Your task to perform on an android device: empty trash in the gmail app Image 0: 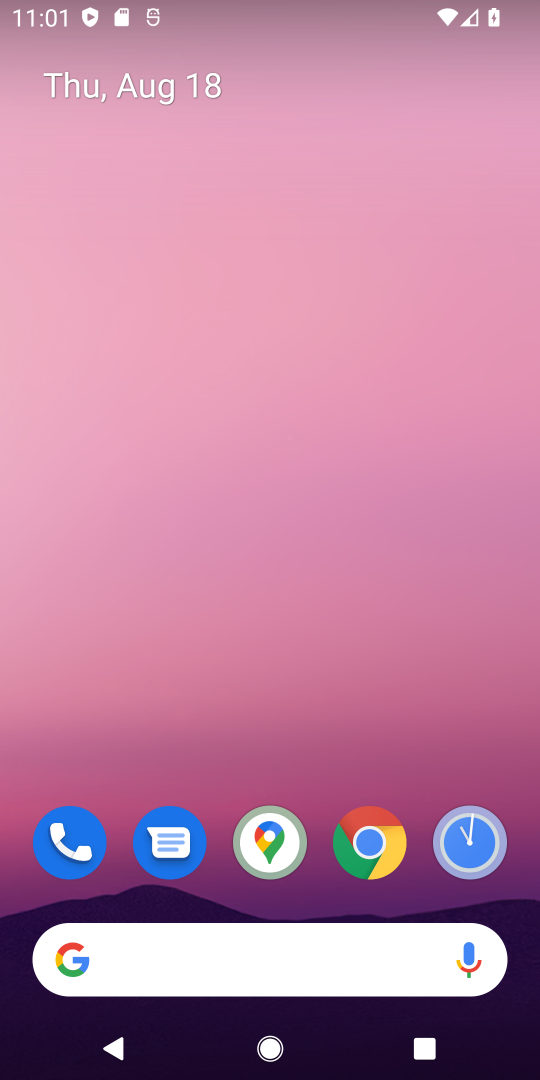
Step 0: drag from (220, 879) to (258, 116)
Your task to perform on an android device: empty trash in the gmail app Image 1: 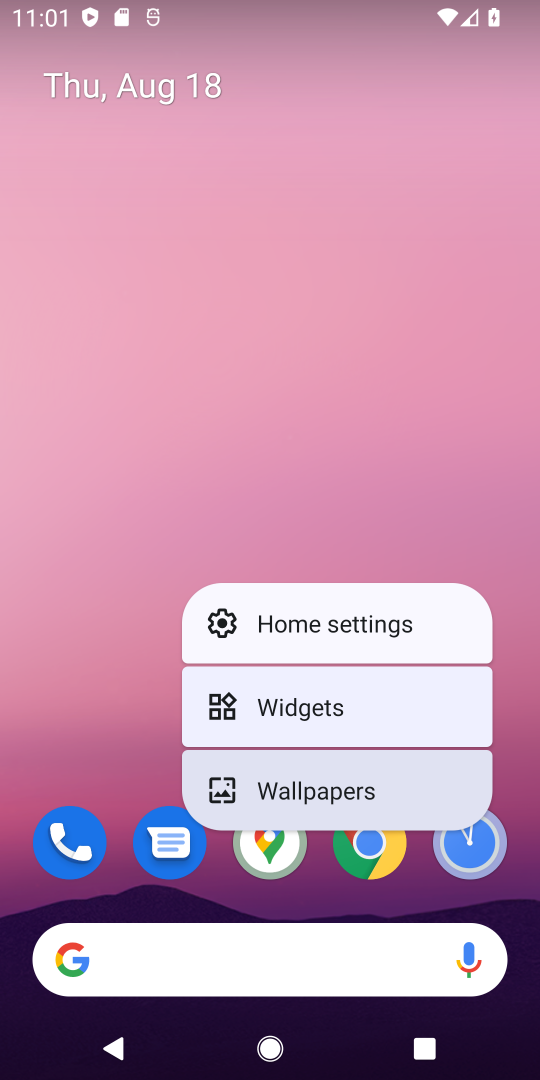
Step 1: click (224, 872)
Your task to perform on an android device: empty trash in the gmail app Image 2: 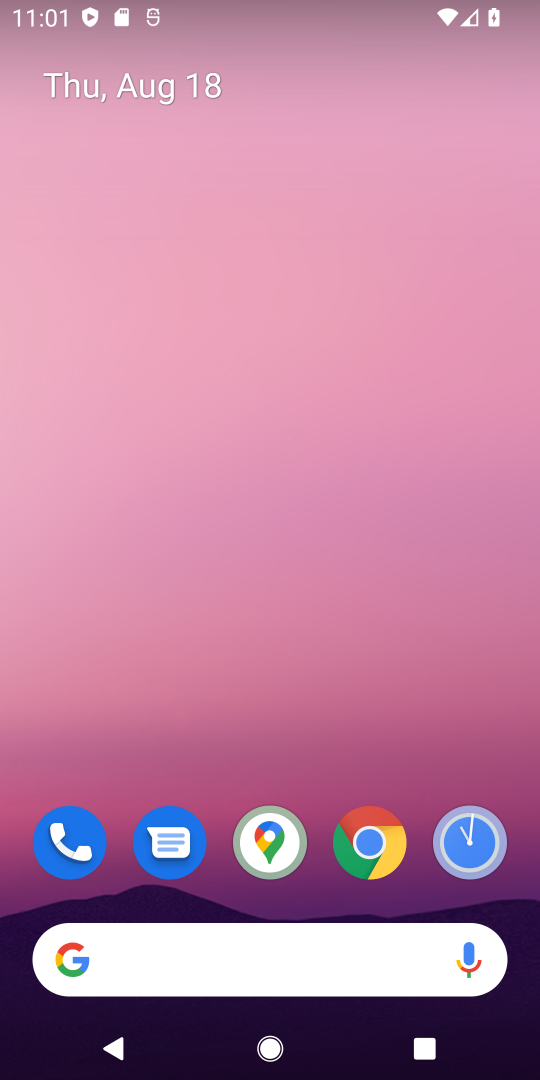
Step 2: drag from (224, 872) to (409, 12)
Your task to perform on an android device: empty trash in the gmail app Image 3: 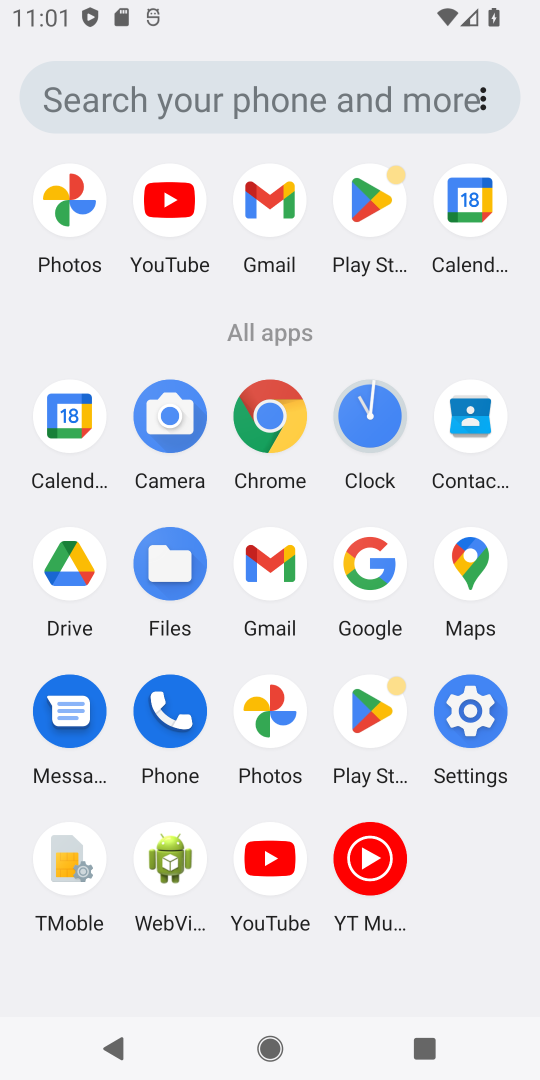
Step 3: click (284, 217)
Your task to perform on an android device: empty trash in the gmail app Image 4: 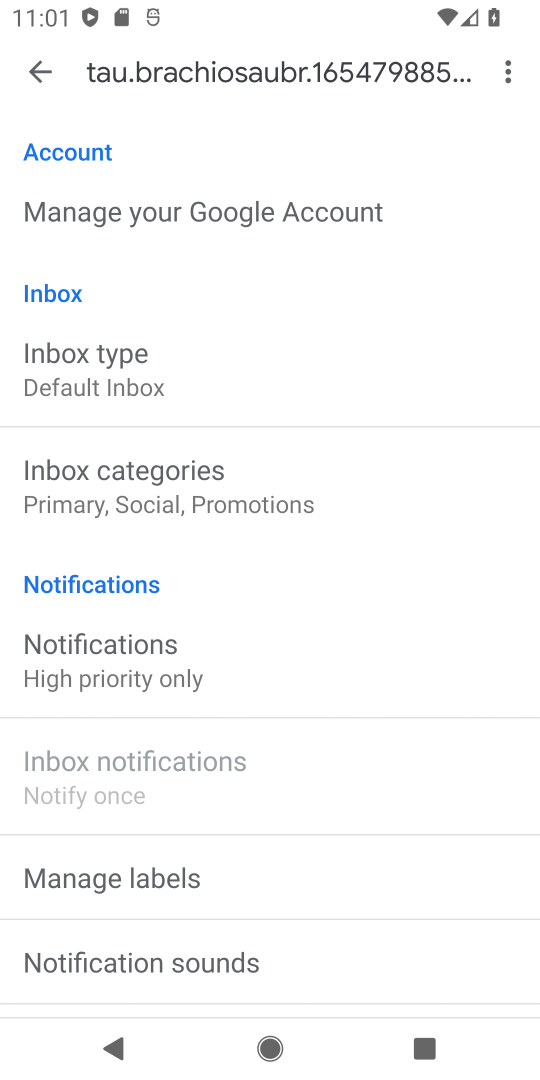
Step 4: click (44, 59)
Your task to perform on an android device: empty trash in the gmail app Image 5: 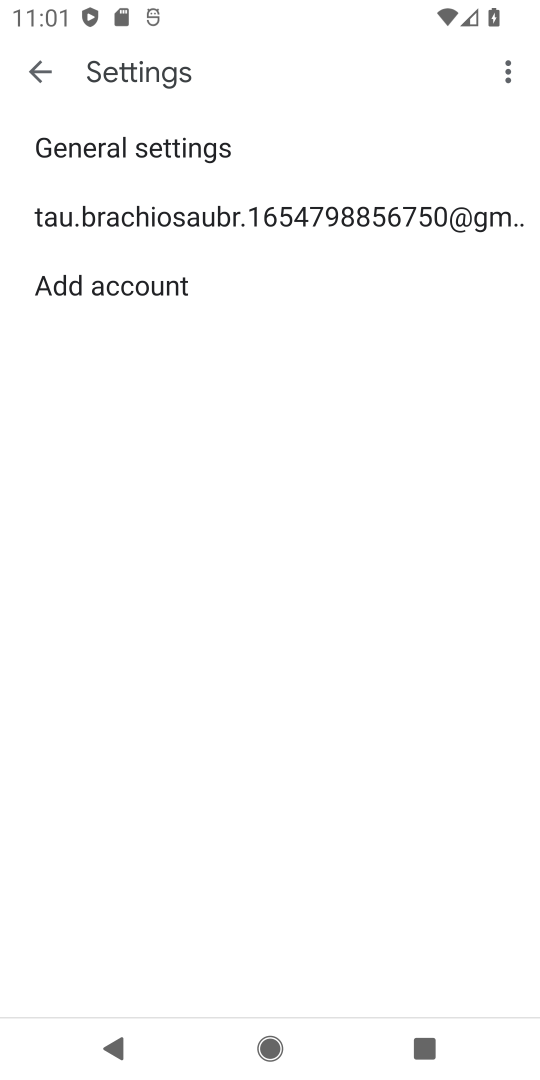
Step 5: click (44, 59)
Your task to perform on an android device: empty trash in the gmail app Image 6: 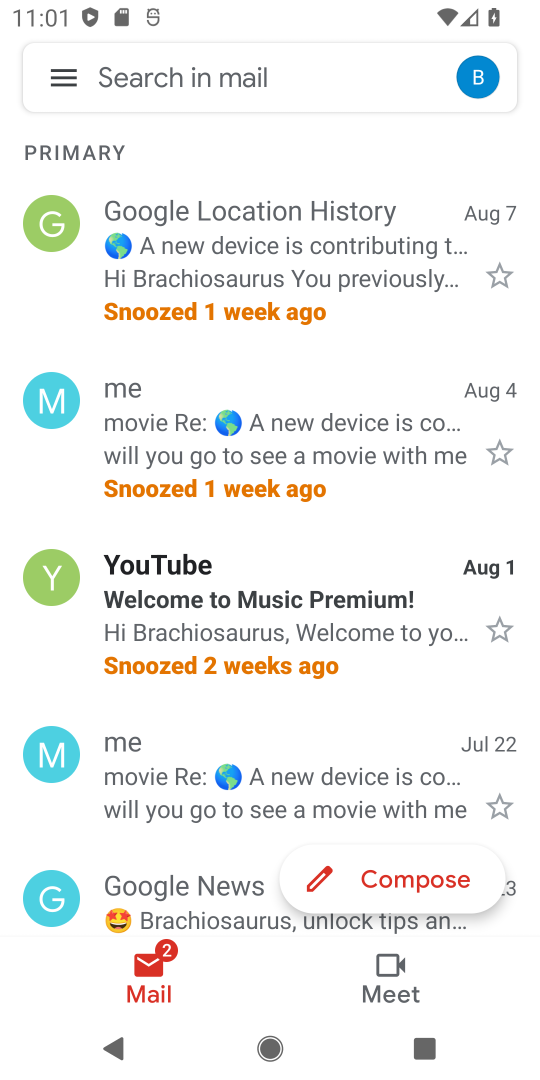
Step 6: click (79, 75)
Your task to perform on an android device: empty trash in the gmail app Image 7: 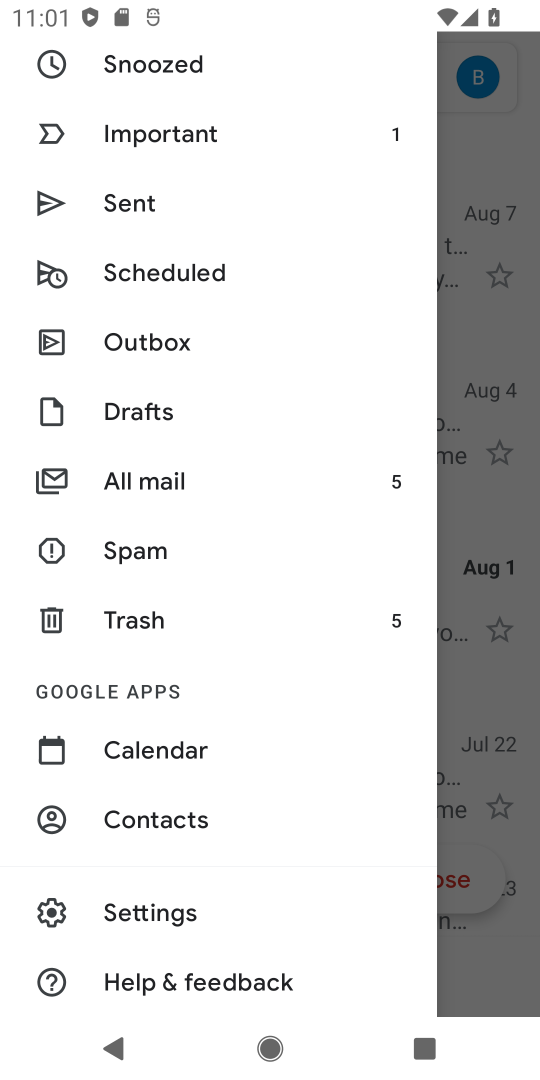
Step 7: click (320, 610)
Your task to perform on an android device: empty trash in the gmail app Image 8: 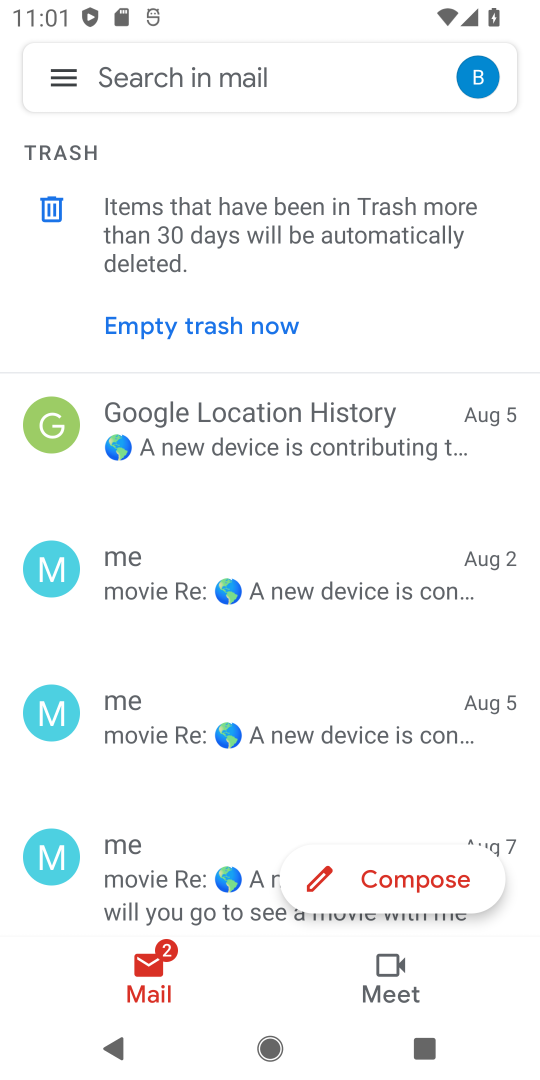
Step 8: click (230, 320)
Your task to perform on an android device: empty trash in the gmail app Image 9: 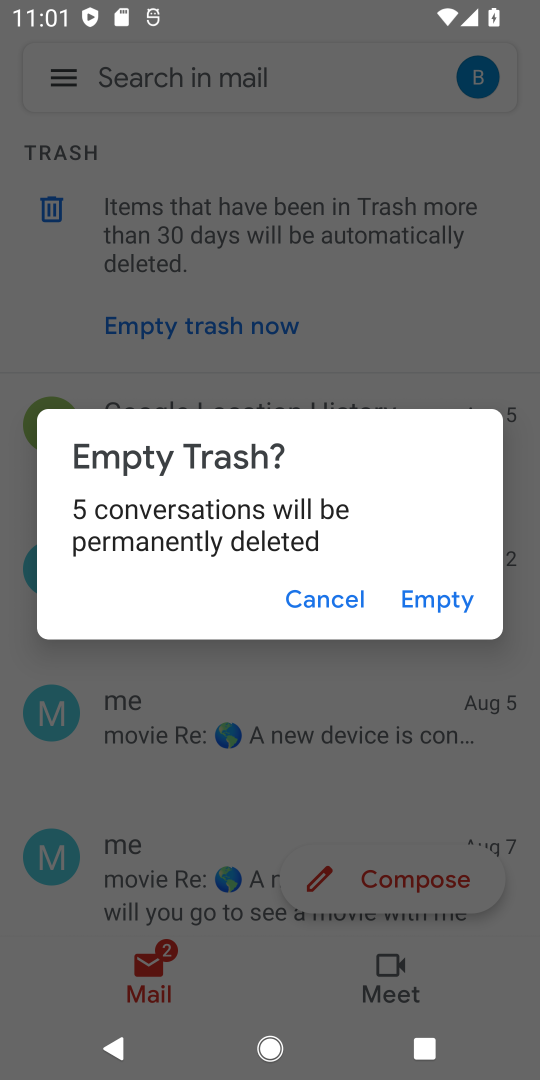
Step 9: click (416, 592)
Your task to perform on an android device: empty trash in the gmail app Image 10: 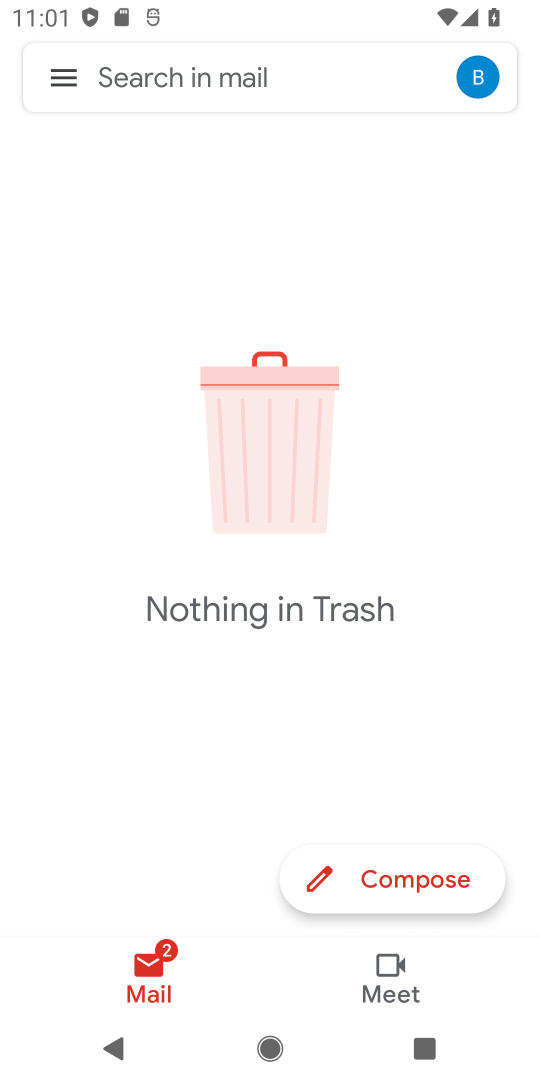
Step 10: task complete